Your task to perform on an android device: change text size in settings app Image 0: 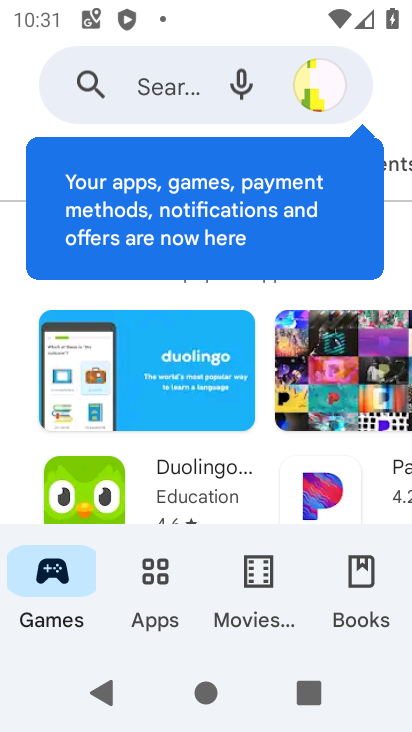
Step 0: press home button
Your task to perform on an android device: change text size in settings app Image 1: 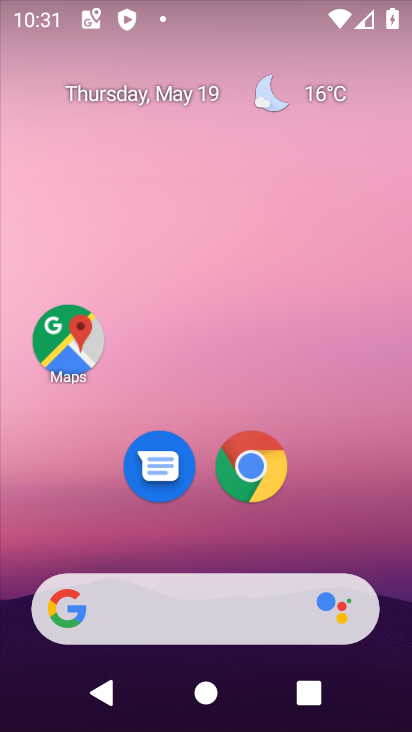
Step 1: drag from (290, 518) to (294, 188)
Your task to perform on an android device: change text size in settings app Image 2: 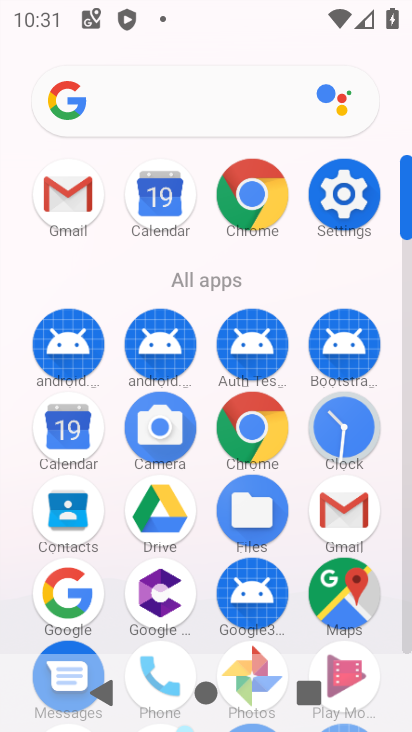
Step 2: drag from (276, 467) to (306, 308)
Your task to perform on an android device: change text size in settings app Image 3: 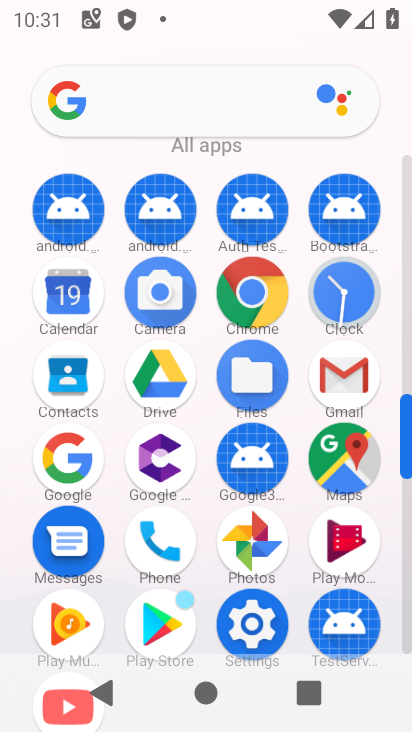
Step 3: drag from (325, 207) to (310, 414)
Your task to perform on an android device: change text size in settings app Image 4: 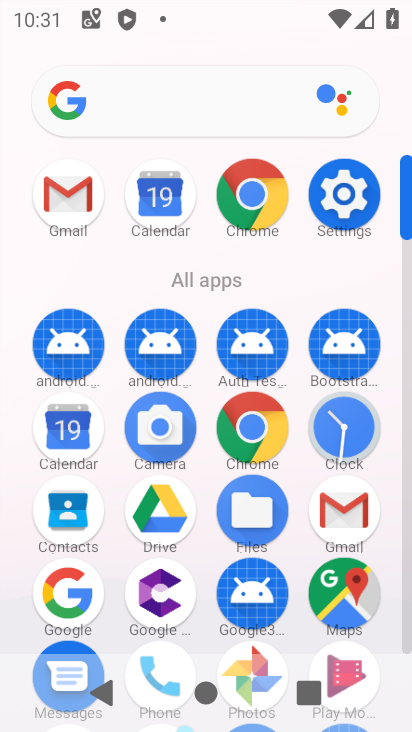
Step 4: click (322, 187)
Your task to perform on an android device: change text size in settings app Image 5: 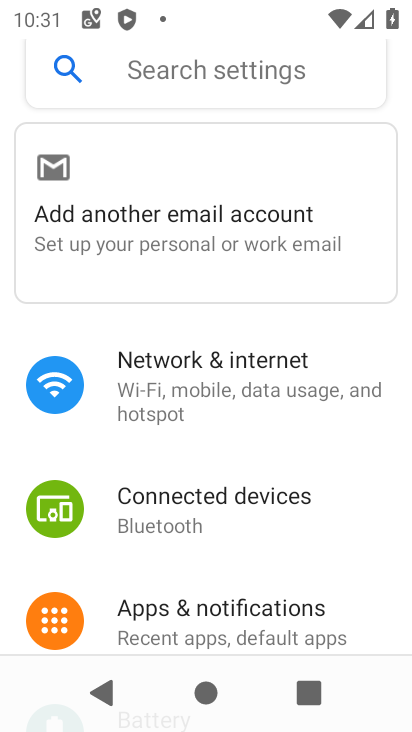
Step 5: drag from (261, 545) to (334, 128)
Your task to perform on an android device: change text size in settings app Image 6: 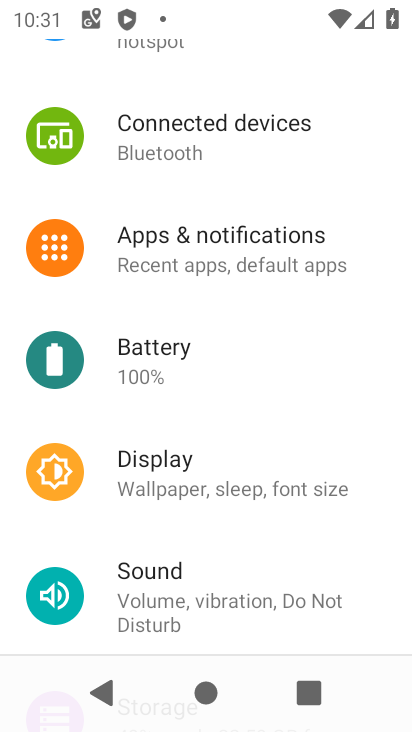
Step 6: click (276, 432)
Your task to perform on an android device: change text size in settings app Image 7: 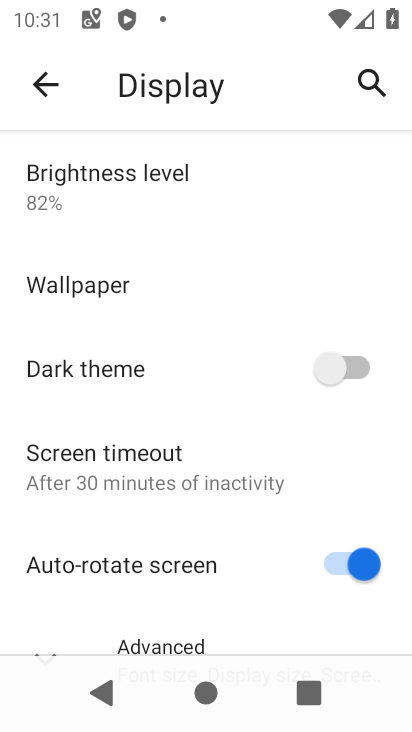
Step 7: drag from (220, 569) to (276, 178)
Your task to perform on an android device: change text size in settings app Image 8: 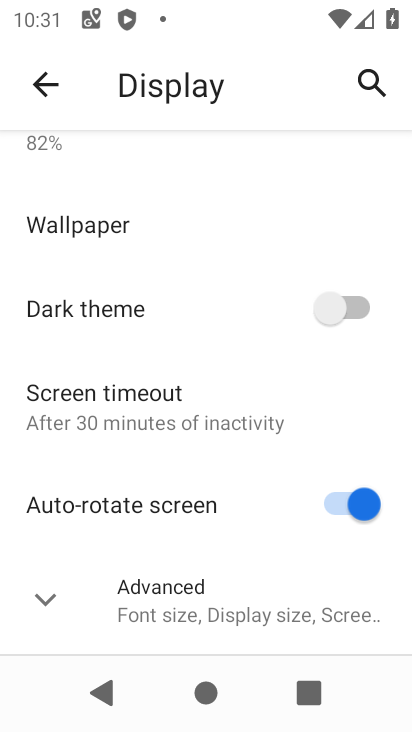
Step 8: click (38, 92)
Your task to perform on an android device: change text size in settings app Image 9: 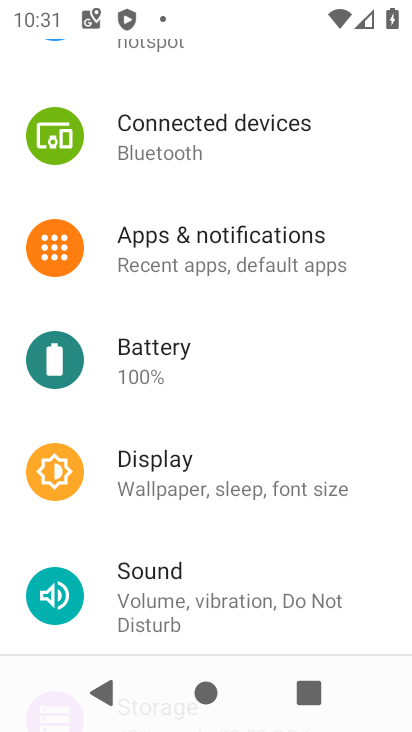
Step 9: drag from (244, 589) to (259, 130)
Your task to perform on an android device: change text size in settings app Image 10: 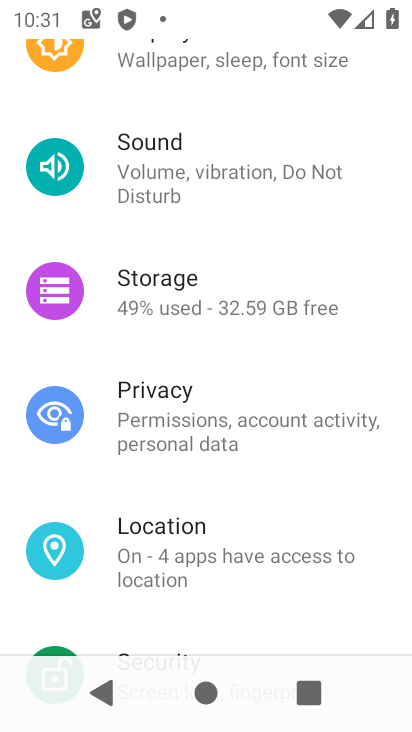
Step 10: drag from (260, 567) to (285, 95)
Your task to perform on an android device: change text size in settings app Image 11: 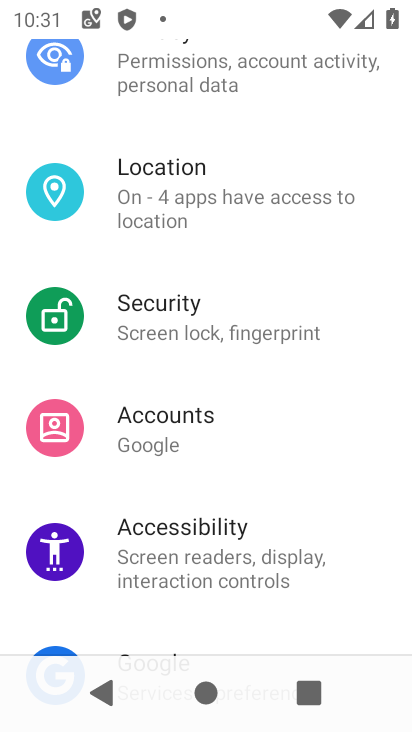
Step 11: drag from (252, 522) to (334, 128)
Your task to perform on an android device: change text size in settings app Image 12: 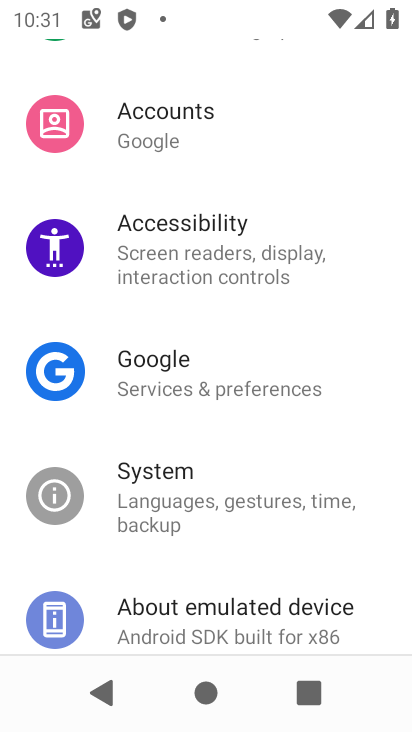
Step 12: click (241, 619)
Your task to perform on an android device: change text size in settings app Image 13: 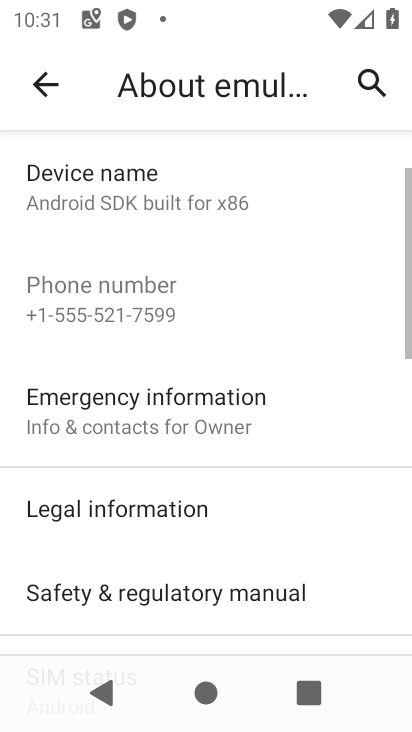
Step 13: click (44, 79)
Your task to perform on an android device: change text size in settings app Image 14: 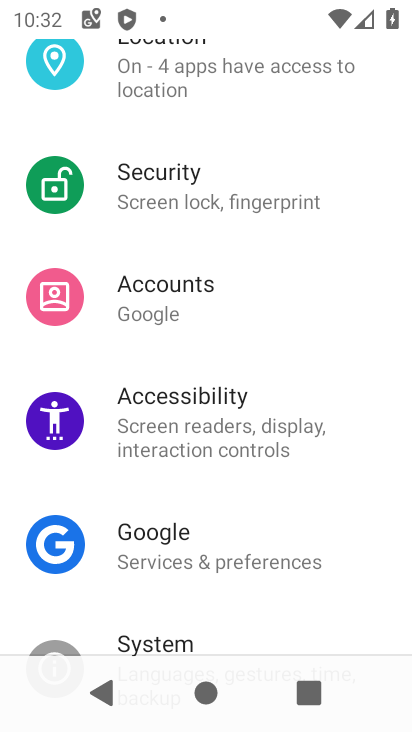
Step 14: click (187, 447)
Your task to perform on an android device: change text size in settings app Image 15: 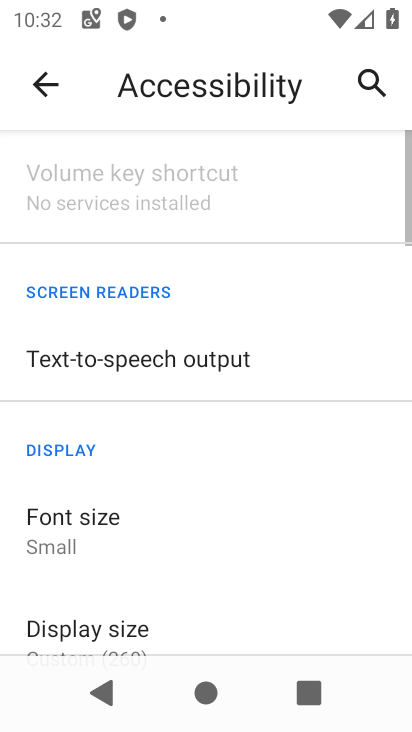
Step 15: click (106, 531)
Your task to perform on an android device: change text size in settings app Image 16: 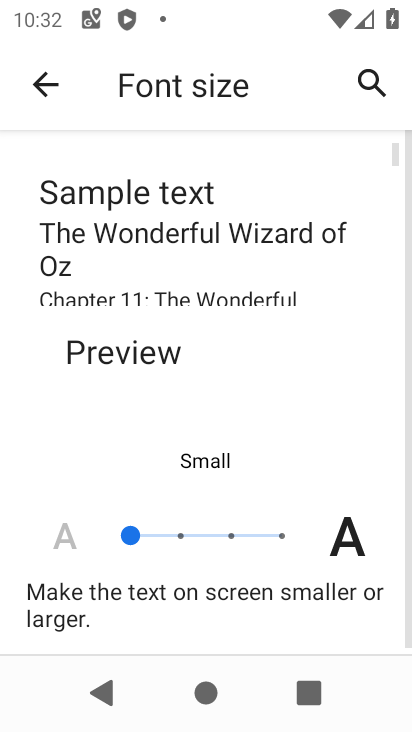
Step 16: click (237, 541)
Your task to perform on an android device: change text size in settings app Image 17: 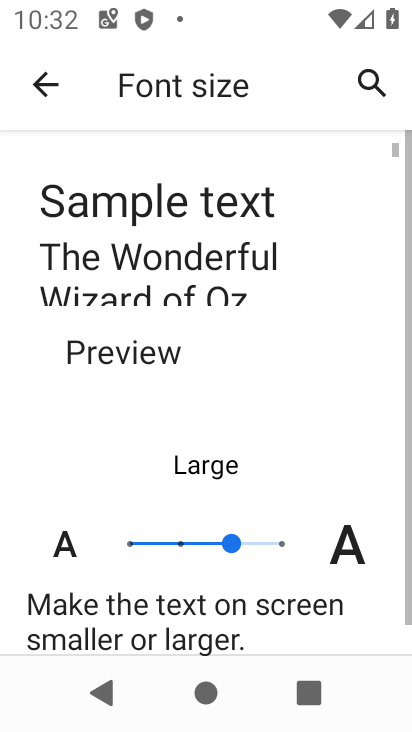
Step 17: task complete